Your task to perform on an android device: turn off improve location accuracy Image 0: 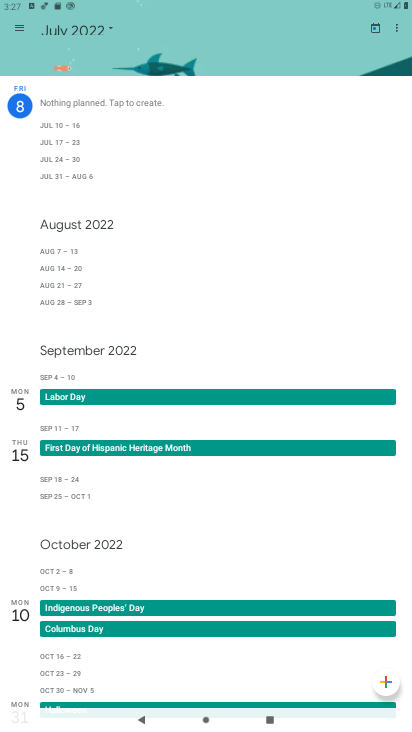
Step 0: press home button
Your task to perform on an android device: turn off improve location accuracy Image 1: 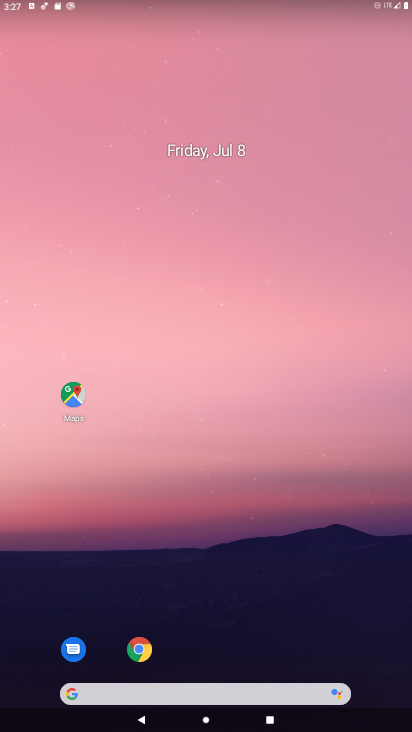
Step 1: click (328, 46)
Your task to perform on an android device: turn off improve location accuracy Image 2: 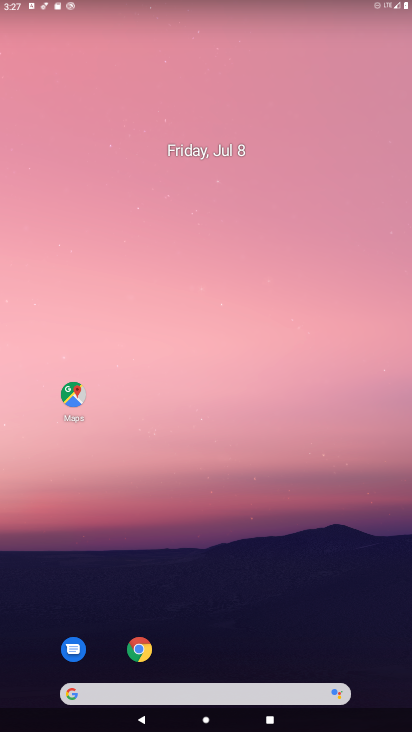
Step 2: drag from (383, 676) to (353, 103)
Your task to perform on an android device: turn off improve location accuracy Image 3: 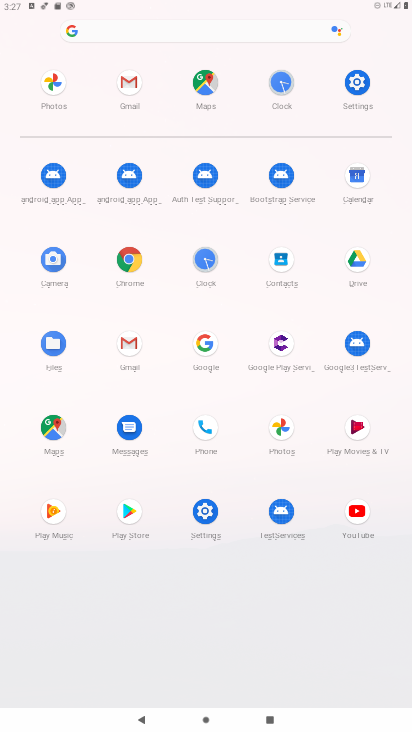
Step 3: click (205, 513)
Your task to perform on an android device: turn off improve location accuracy Image 4: 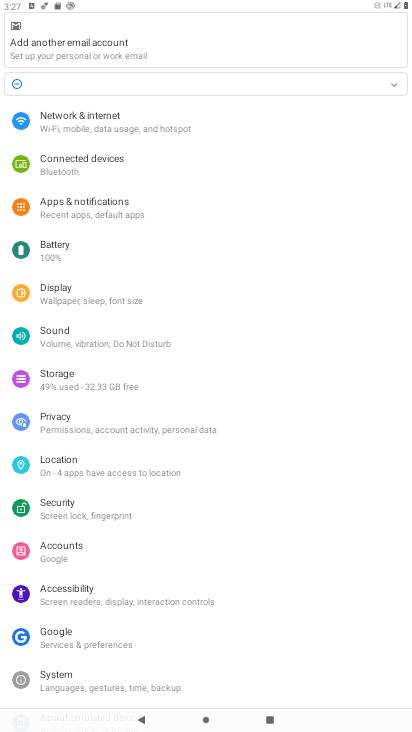
Step 4: click (63, 460)
Your task to perform on an android device: turn off improve location accuracy Image 5: 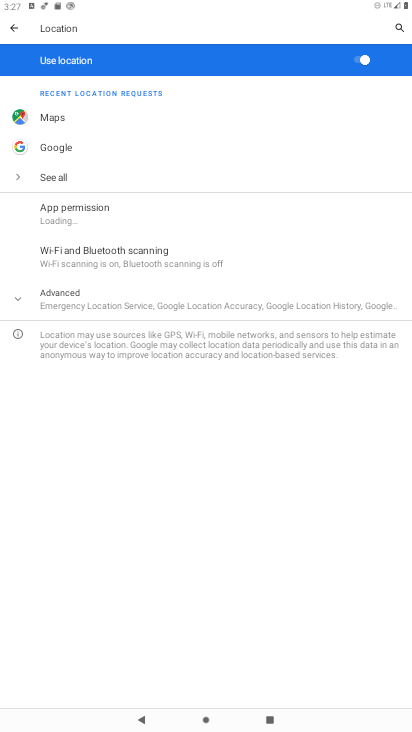
Step 5: click (18, 288)
Your task to perform on an android device: turn off improve location accuracy Image 6: 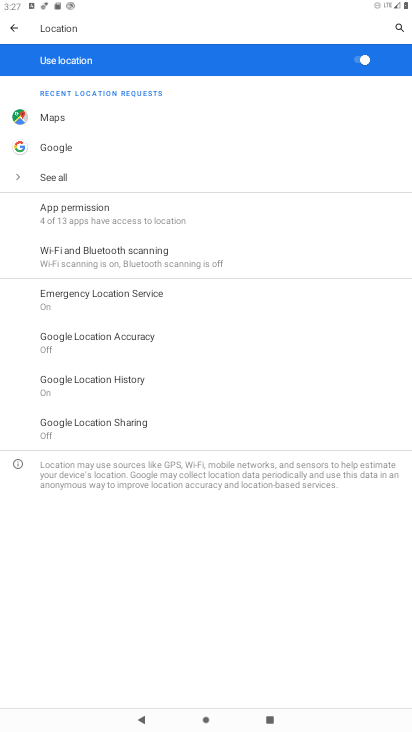
Step 6: click (81, 340)
Your task to perform on an android device: turn off improve location accuracy Image 7: 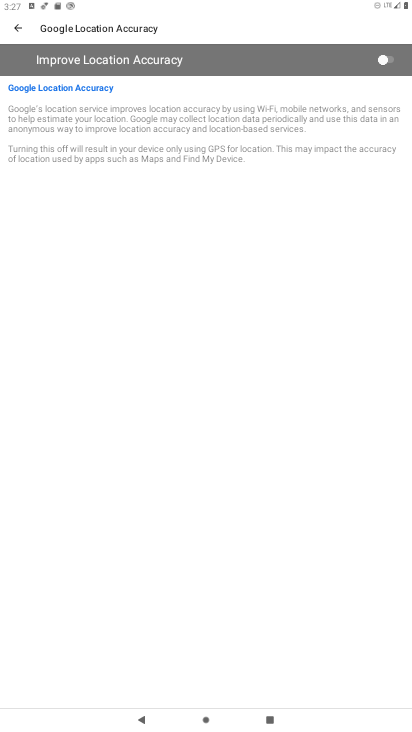
Step 7: task complete